Your task to perform on an android device: Open sound settings Image 0: 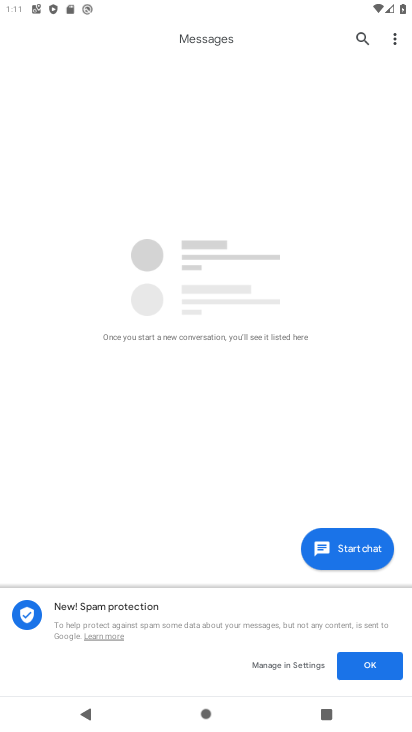
Step 0: press home button
Your task to perform on an android device: Open sound settings Image 1: 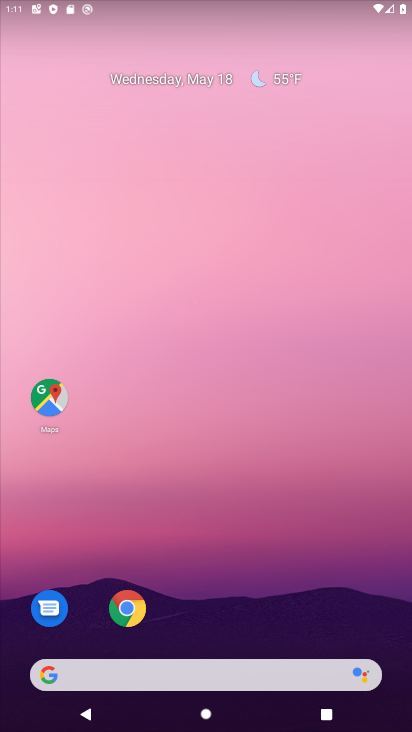
Step 1: drag from (297, 584) to (345, 220)
Your task to perform on an android device: Open sound settings Image 2: 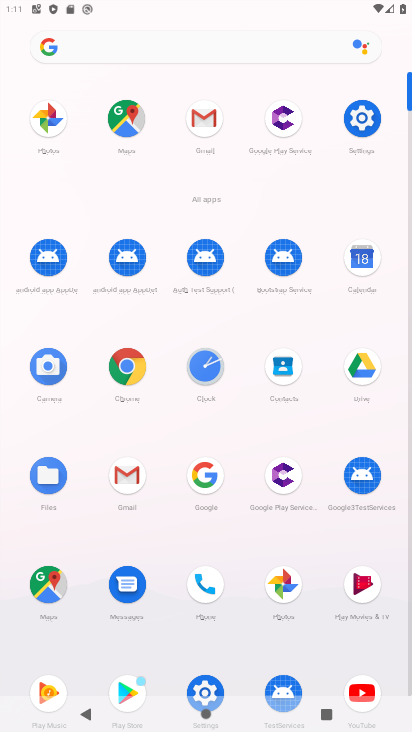
Step 2: click (360, 117)
Your task to perform on an android device: Open sound settings Image 3: 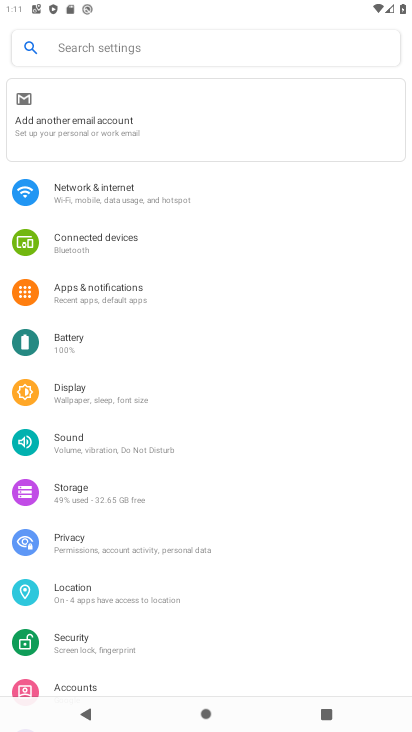
Step 3: drag from (129, 660) to (197, 497)
Your task to perform on an android device: Open sound settings Image 4: 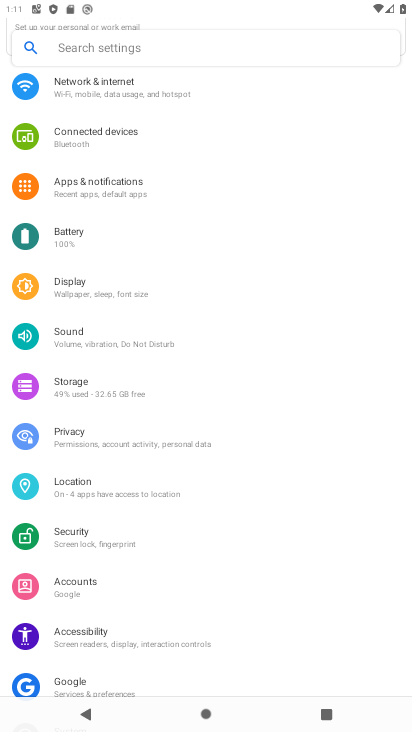
Step 4: click (142, 333)
Your task to perform on an android device: Open sound settings Image 5: 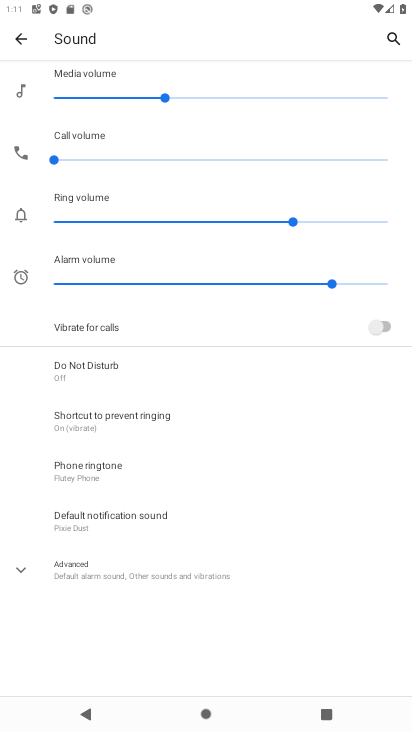
Step 5: task complete